Your task to perform on an android device: open chrome privacy settings Image 0: 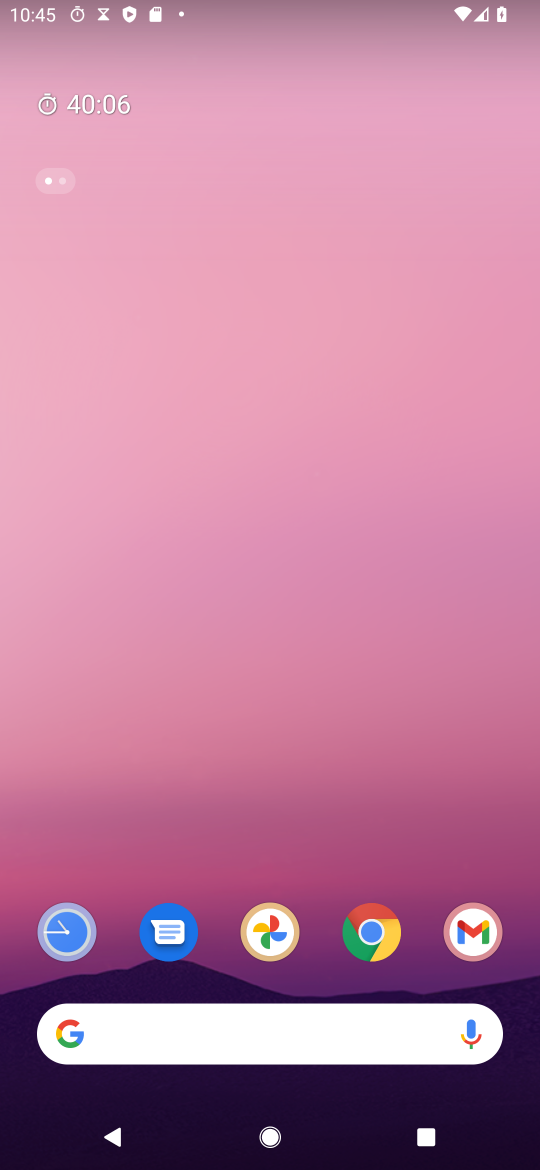
Step 0: drag from (348, 838) to (256, 150)
Your task to perform on an android device: open chrome privacy settings Image 1: 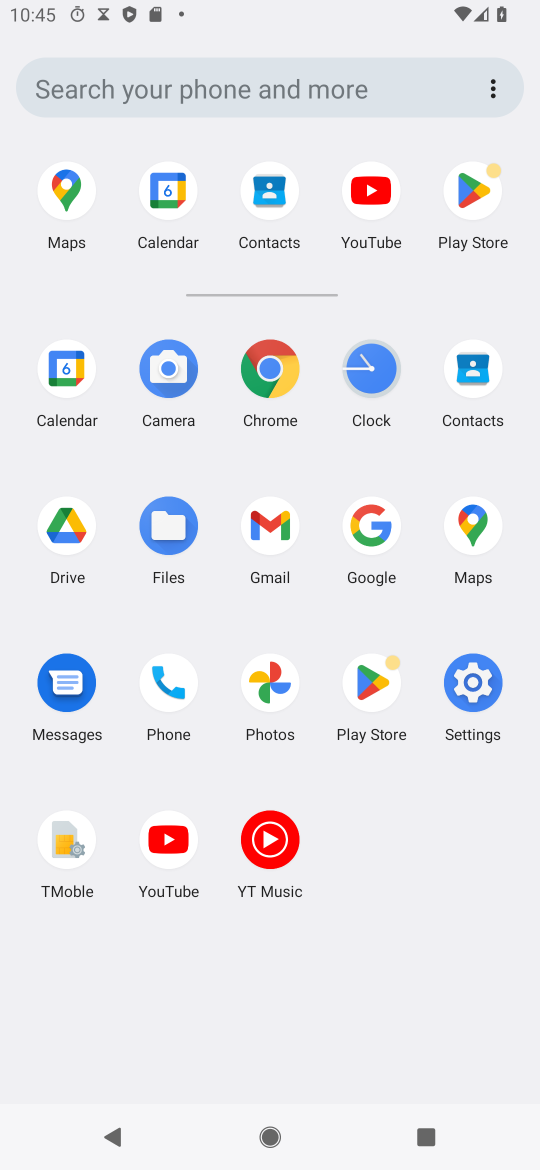
Step 1: click (283, 352)
Your task to perform on an android device: open chrome privacy settings Image 2: 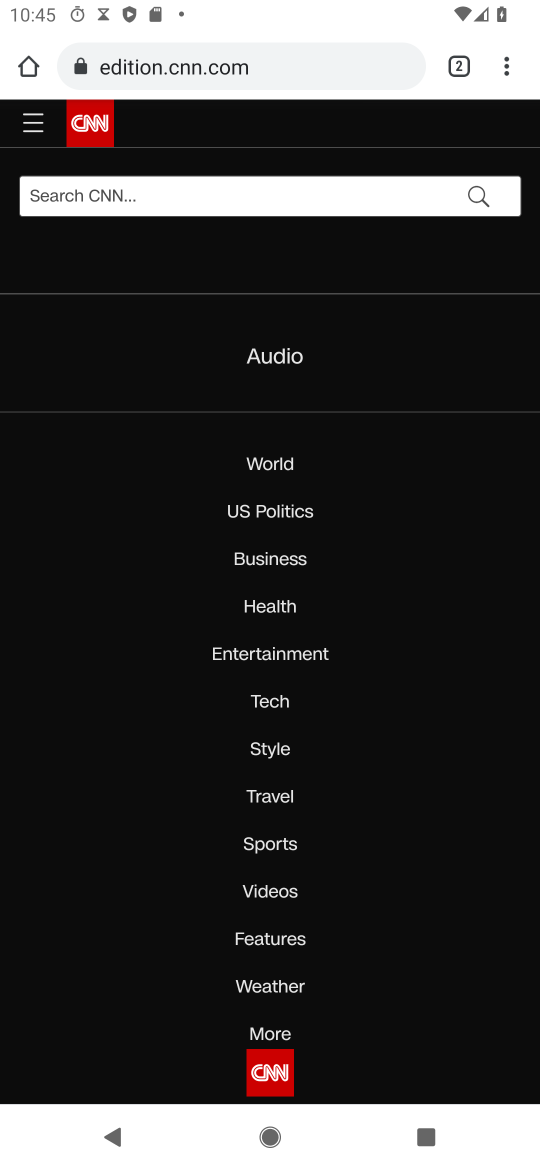
Step 2: click (510, 68)
Your task to perform on an android device: open chrome privacy settings Image 3: 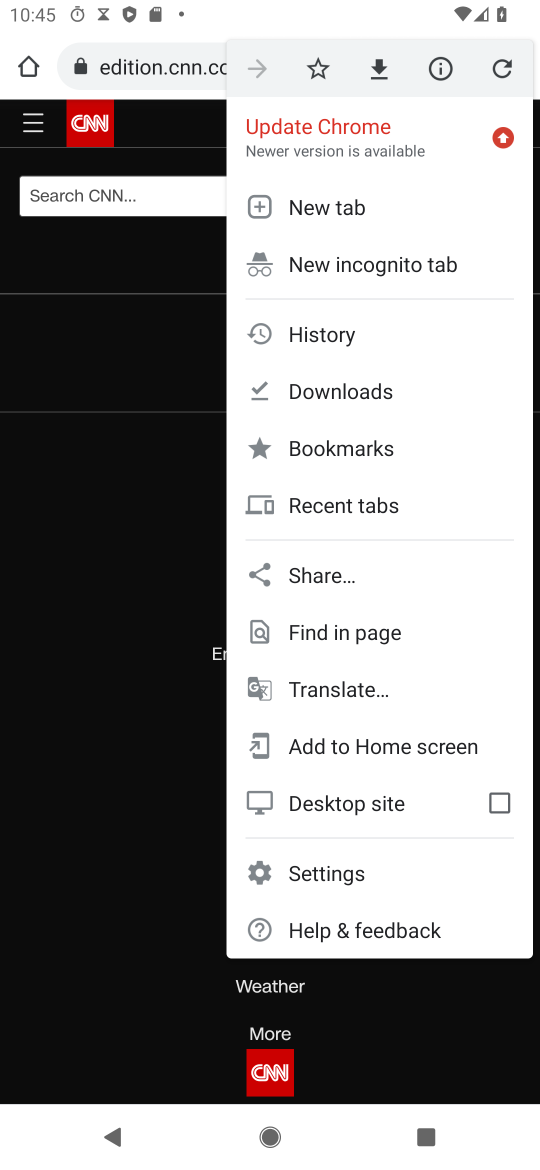
Step 3: click (405, 872)
Your task to perform on an android device: open chrome privacy settings Image 4: 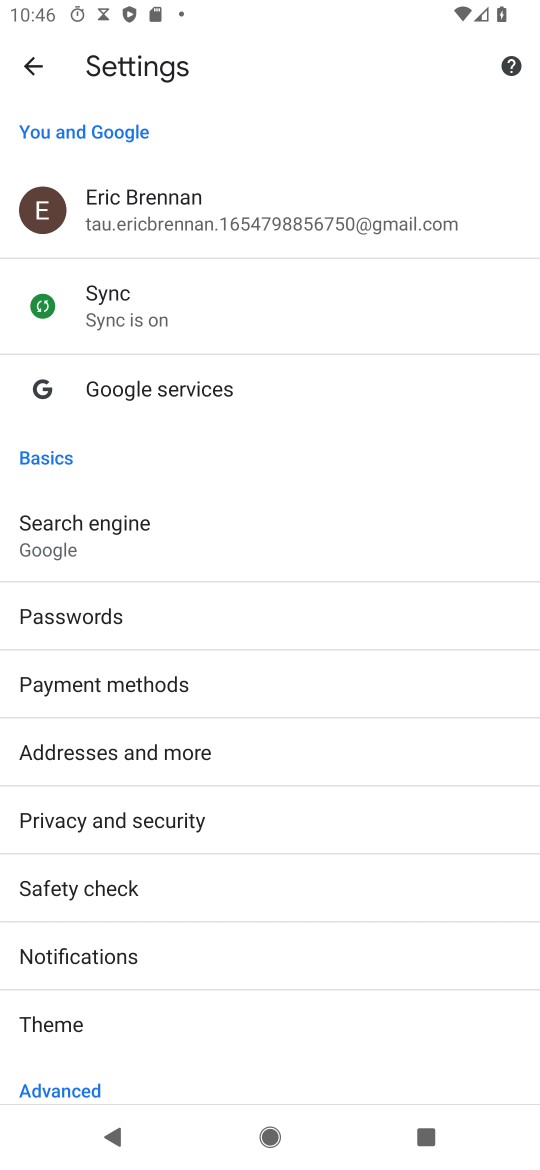
Step 4: click (280, 817)
Your task to perform on an android device: open chrome privacy settings Image 5: 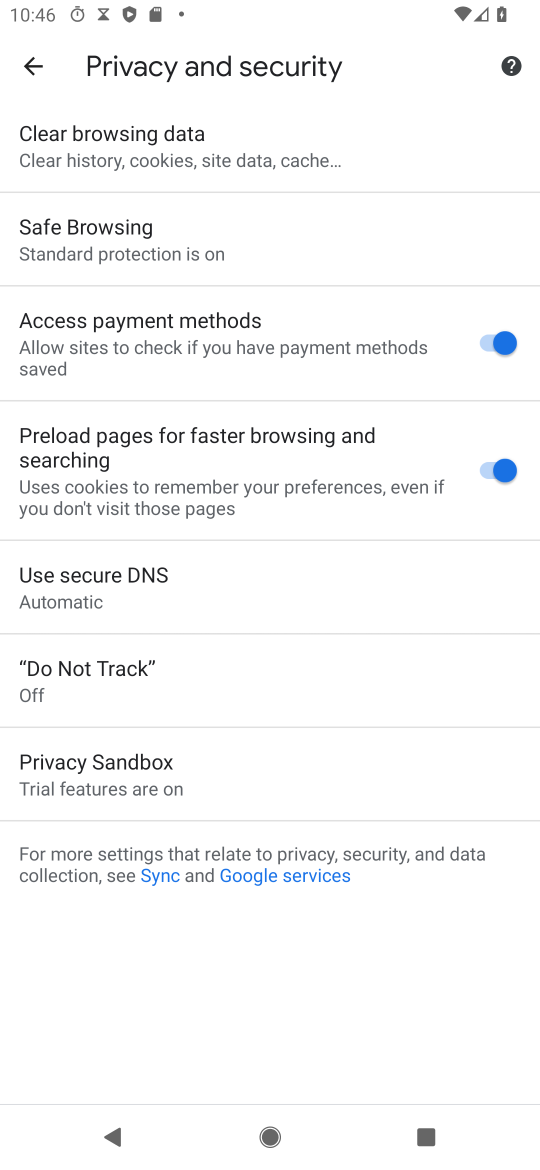
Step 5: task complete